Your task to perform on an android device: toggle improve location accuracy Image 0: 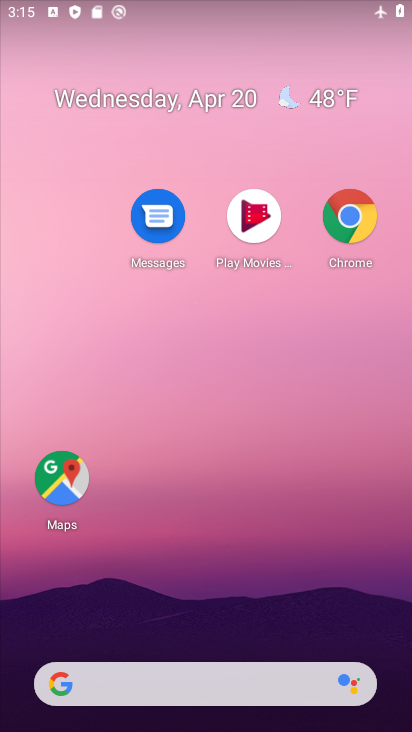
Step 0: drag from (192, 616) to (245, 149)
Your task to perform on an android device: toggle improve location accuracy Image 1: 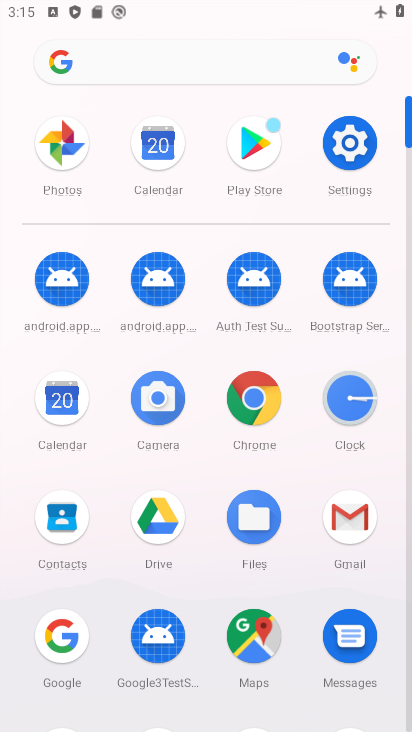
Step 1: click (359, 158)
Your task to perform on an android device: toggle improve location accuracy Image 2: 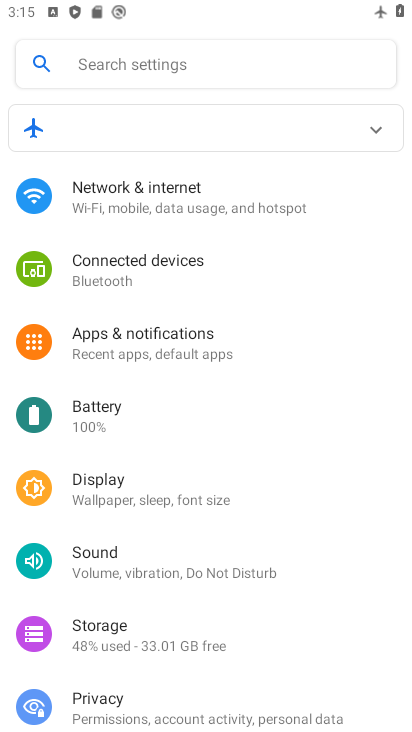
Step 2: drag from (204, 689) to (228, 407)
Your task to perform on an android device: toggle improve location accuracy Image 3: 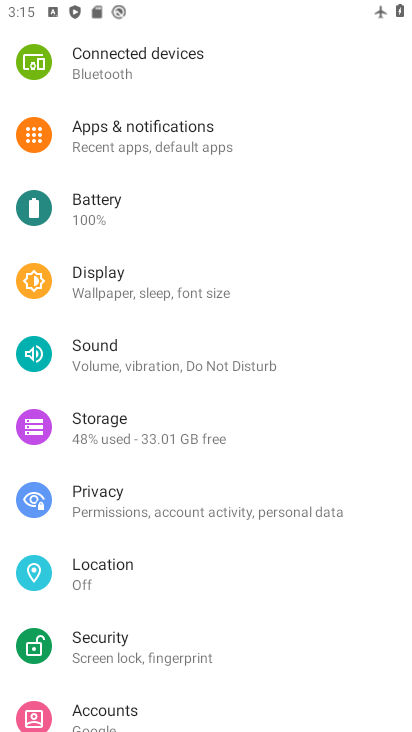
Step 3: click (183, 581)
Your task to perform on an android device: toggle improve location accuracy Image 4: 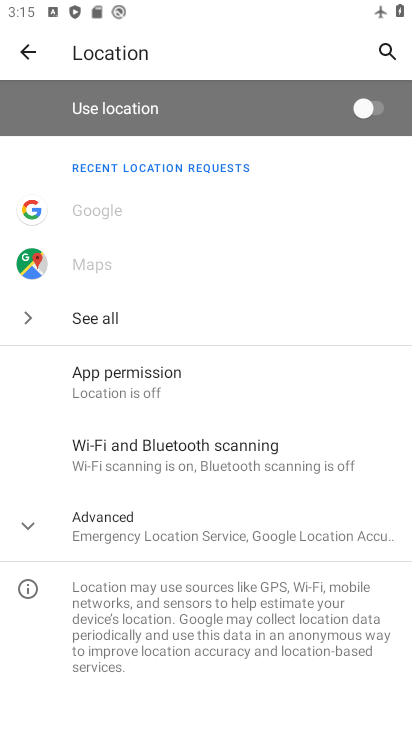
Step 4: click (213, 525)
Your task to perform on an android device: toggle improve location accuracy Image 5: 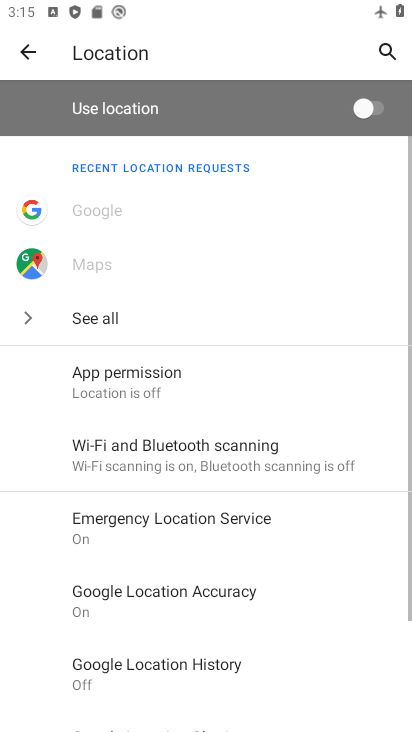
Step 5: drag from (217, 606) to (243, 412)
Your task to perform on an android device: toggle improve location accuracy Image 6: 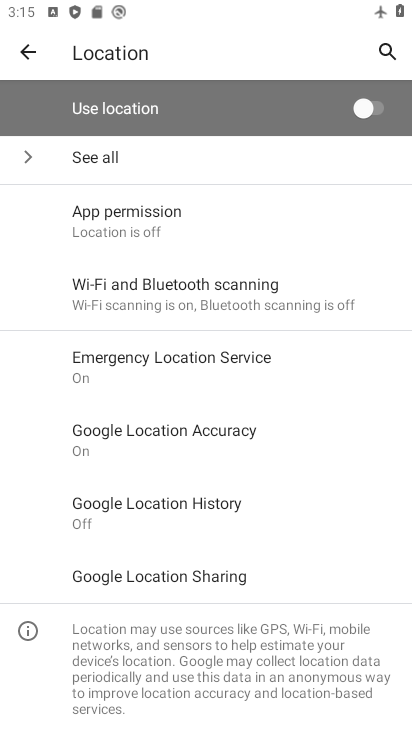
Step 6: click (249, 443)
Your task to perform on an android device: toggle improve location accuracy Image 7: 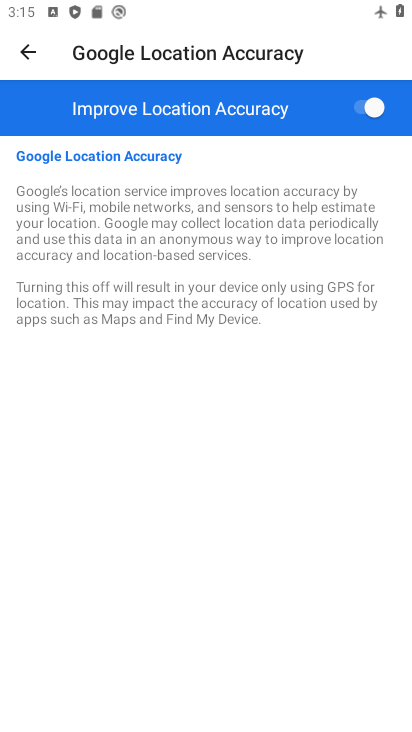
Step 7: task complete